Your task to perform on an android device: What's on my calendar tomorrow? Image 0: 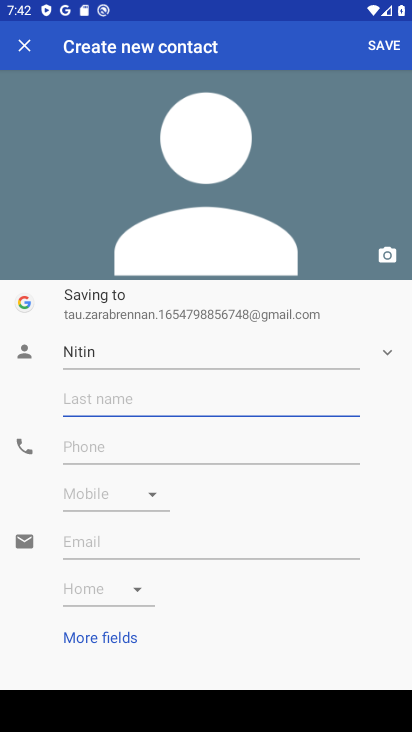
Step 0: press home button
Your task to perform on an android device: What's on my calendar tomorrow? Image 1: 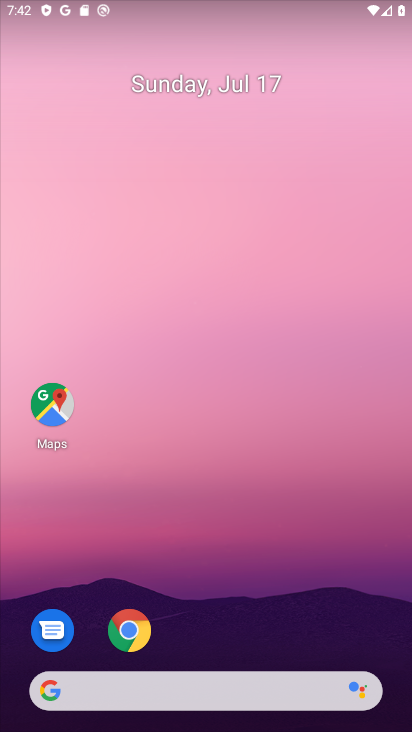
Step 1: drag from (190, 360) to (232, 100)
Your task to perform on an android device: What's on my calendar tomorrow? Image 2: 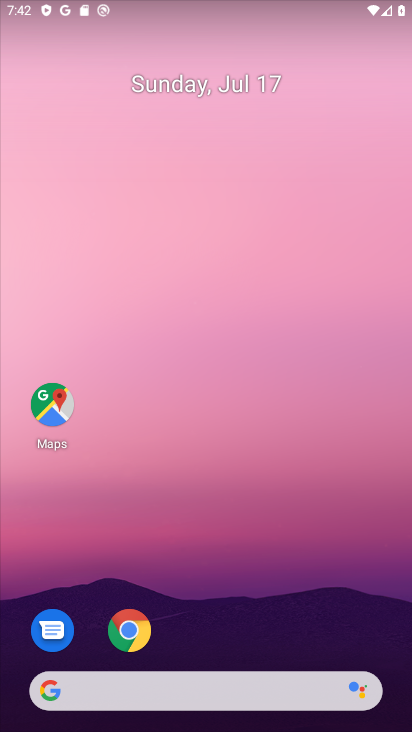
Step 2: drag from (190, 525) to (246, 95)
Your task to perform on an android device: What's on my calendar tomorrow? Image 3: 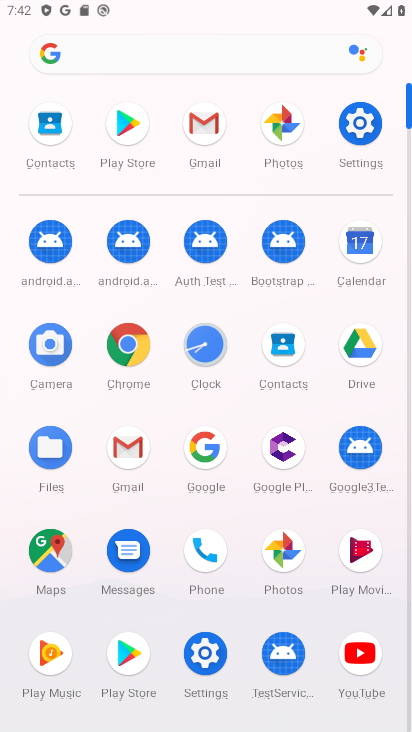
Step 3: click (363, 265)
Your task to perform on an android device: What's on my calendar tomorrow? Image 4: 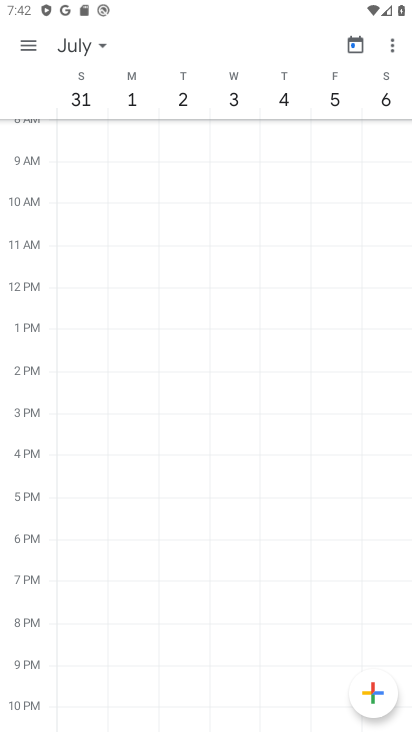
Step 4: click (79, 46)
Your task to perform on an android device: What's on my calendar tomorrow? Image 5: 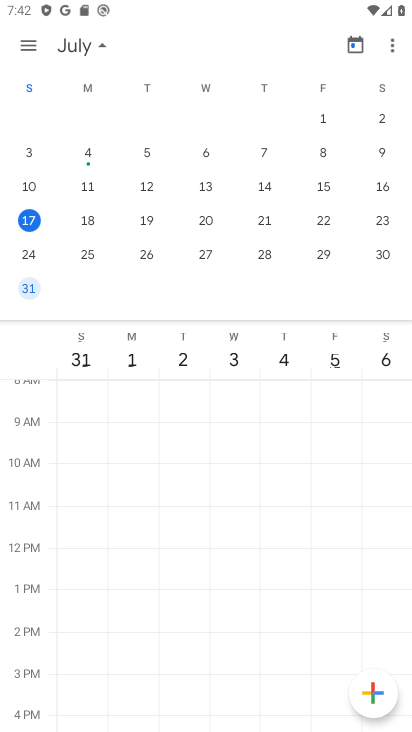
Step 5: click (87, 221)
Your task to perform on an android device: What's on my calendar tomorrow? Image 6: 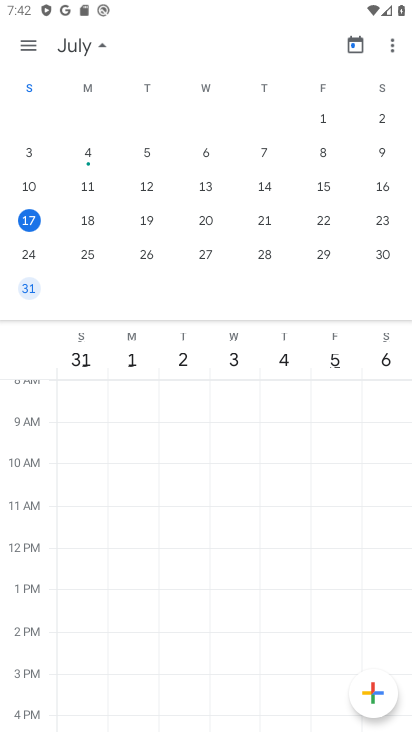
Step 6: click (87, 221)
Your task to perform on an android device: What's on my calendar tomorrow? Image 7: 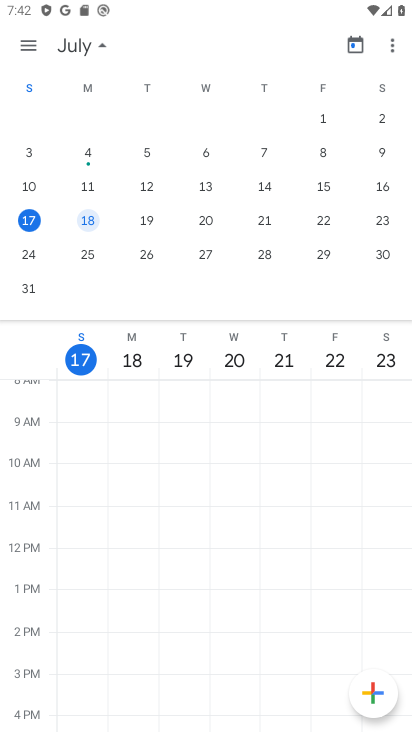
Step 7: click (30, 38)
Your task to perform on an android device: What's on my calendar tomorrow? Image 8: 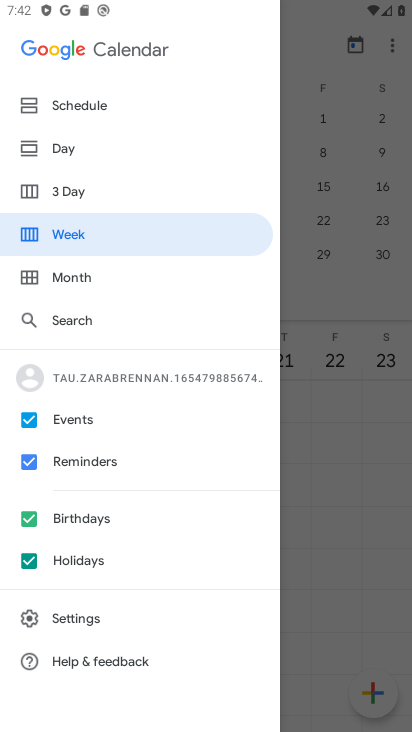
Step 8: click (70, 113)
Your task to perform on an android device: What's on my calendar tomorrow? Image 9: 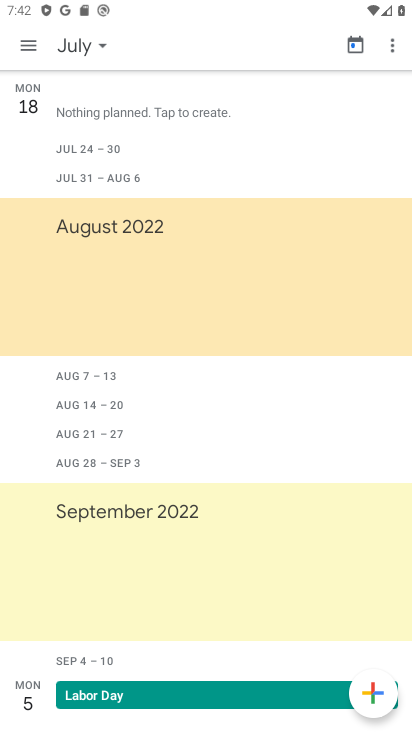
Step 9: task complete